Your task to perform on an android device: turn on sleep mode Image 0: 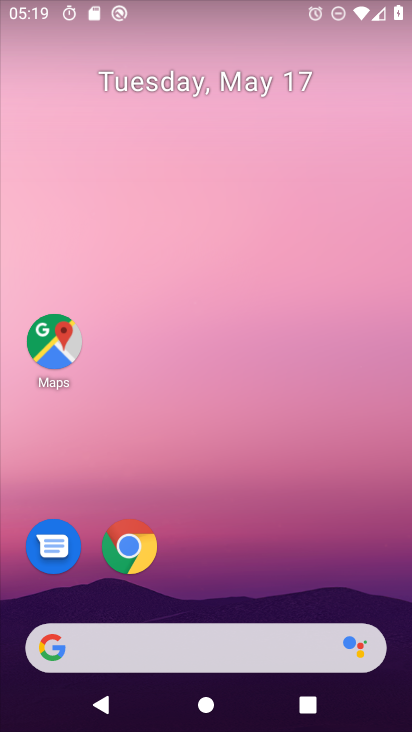
Step 0: drag from (407, 638) to (354, 331)
Your task to perform on an android device: turn on sleep mode Image 1: 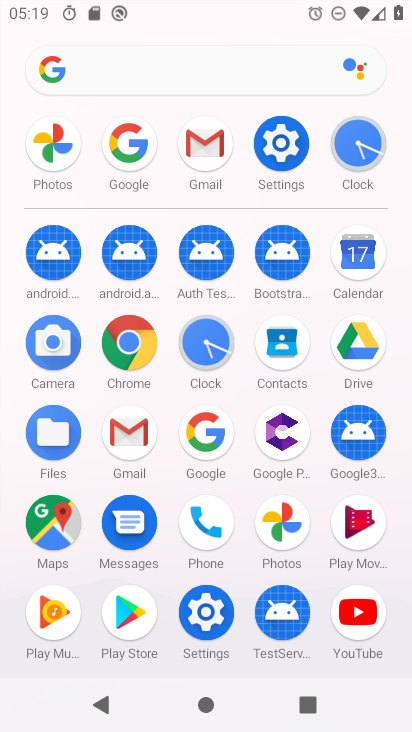
Step 1: click (278, 122)
Your task to perform on an android device: turn on sleep mode Image 2: 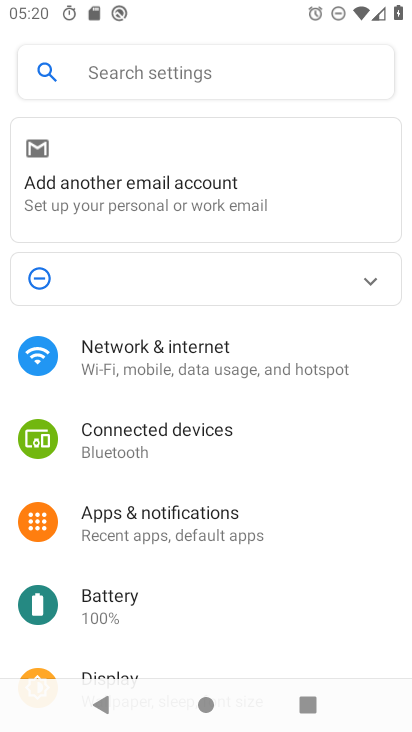
Step 2: drag from (326, 534) to (318, 398)
Your task to perform on an android device: turn on sleep mode Image 3: 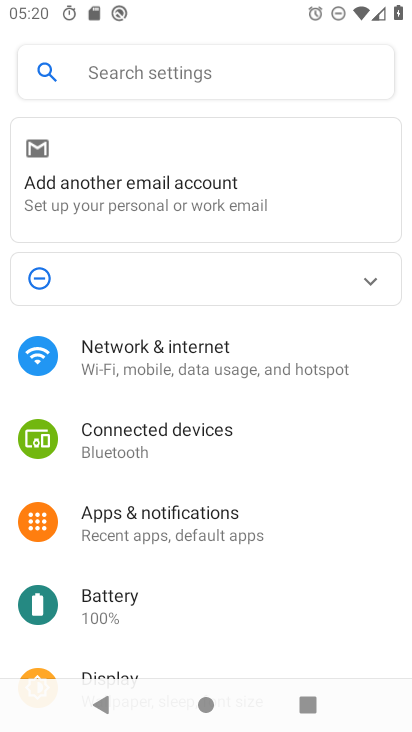
Step 3: drag from (269, 639) to (293, 308)
Your task to perform on an android device: turn on sleep mode Image 4: 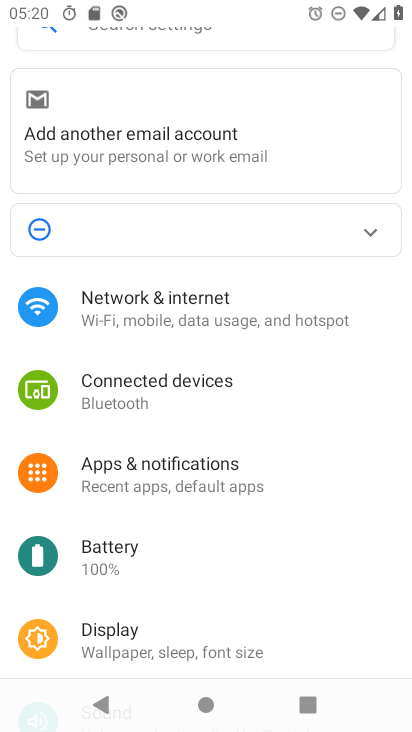
Step 4: click (100, 626)
Your task to perform on an android device: turn on sleep mode Image 5: 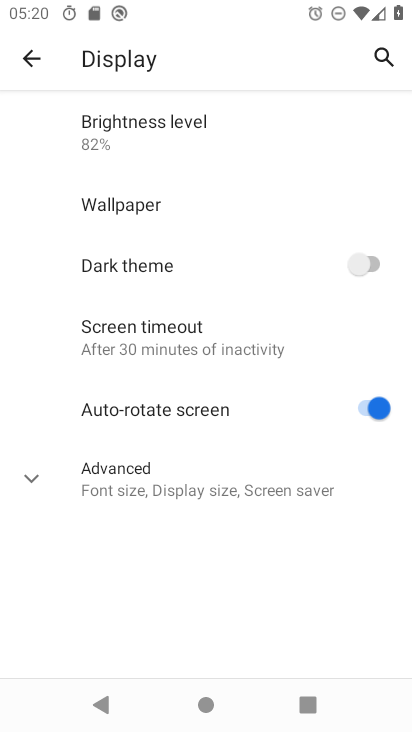
Step 5: click (129, 330)
Your task to perform on an android device: turn on sleep mode Image 6: 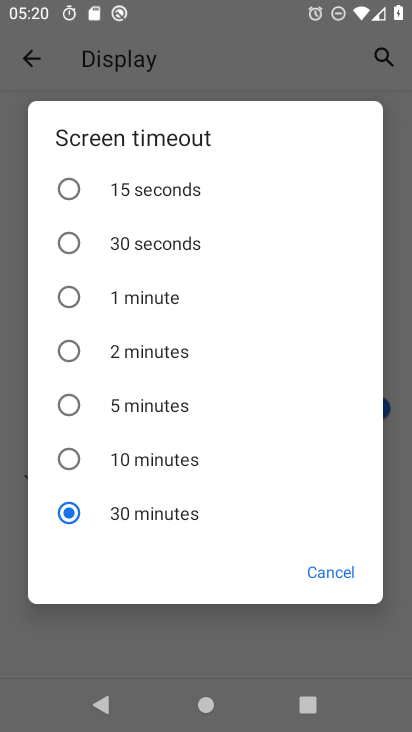
Step 6: task complete